Your task to perform on an android device: remove spam from my inbox in the gmail app Image 0: 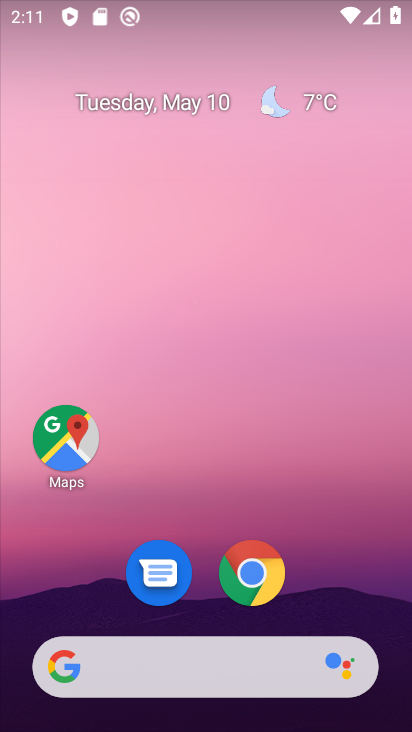
Step 0: drag from (343, 560) to (285, 61)
Your task to perform on an android device: remove spam from my inbox in the gmail app Image 1: 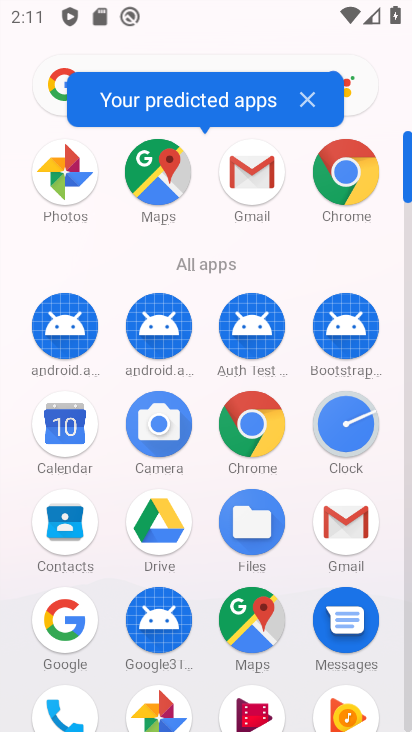
Step 1: click (258, 177)
Your task to perform on an android device: remove spam from my inbox in the gmail app Image 2: 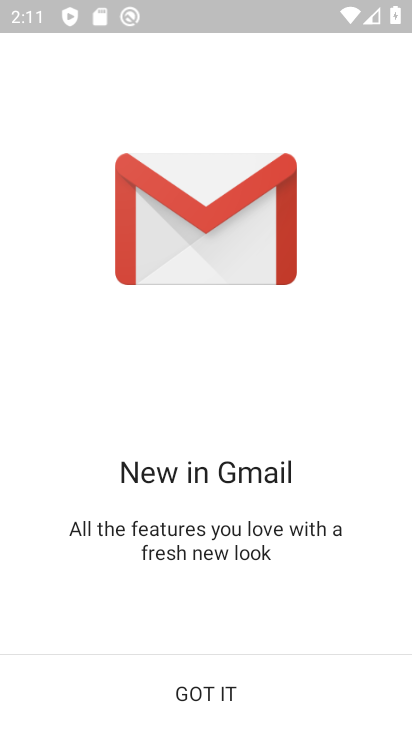
Step 2: click (244, 689)
Your task to perform on an android device: remove spam from my inbox in the gmail app Image 3: 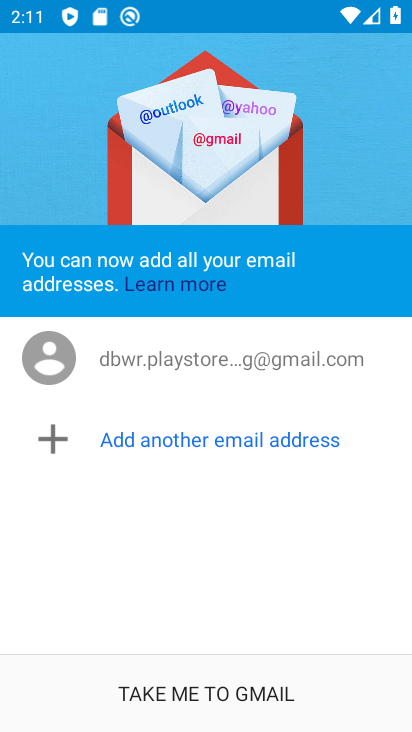
Step 3: click (244, 686)
Your task to perform on an android device: remove spam from my inbox in the gmail app Image 4: 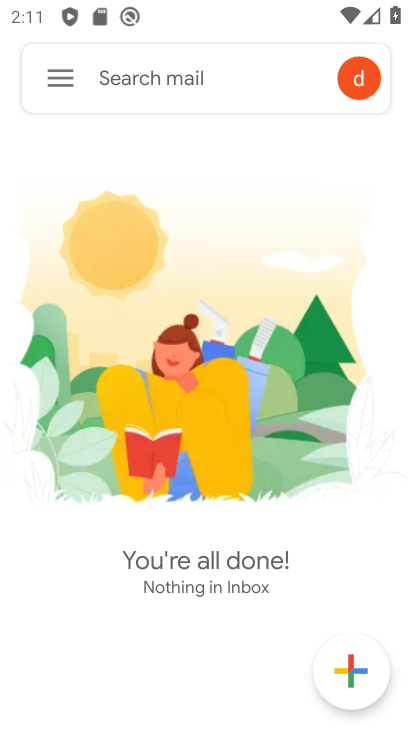
Step 4: click (59, 68)
Your task to perform on an android device: remove spam from my inbox in the gmail app Image 5: 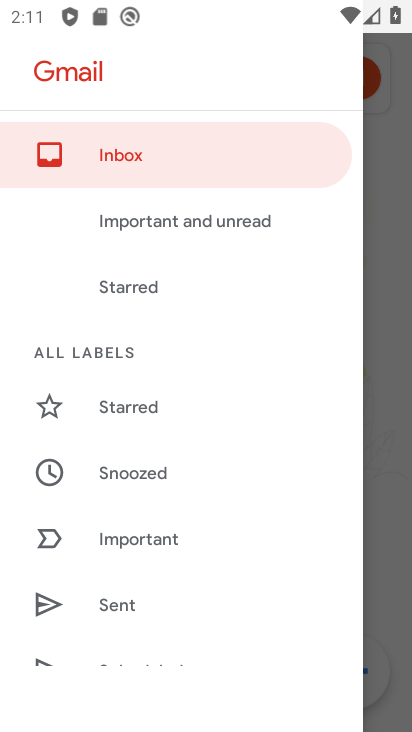
Step 5: drag from (179, 576) to (186, 157)
Your task to perform on an android device: remove spam from my inbox in the gmail app Image 6: 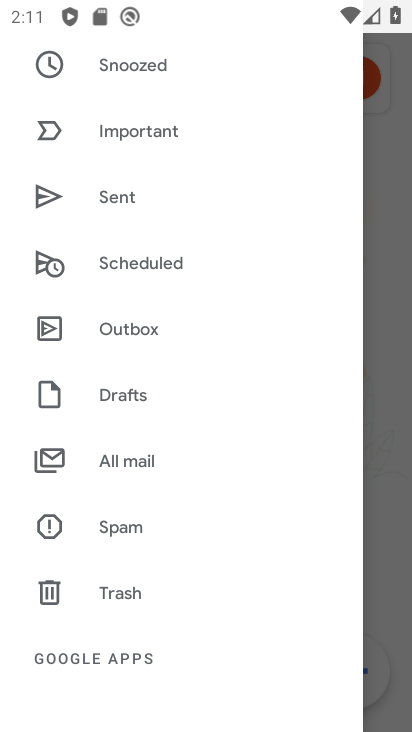
Step 6: click (194, 516)
Your task to perform on an android device: remove spam from my inbox in the gmail app Image 7: 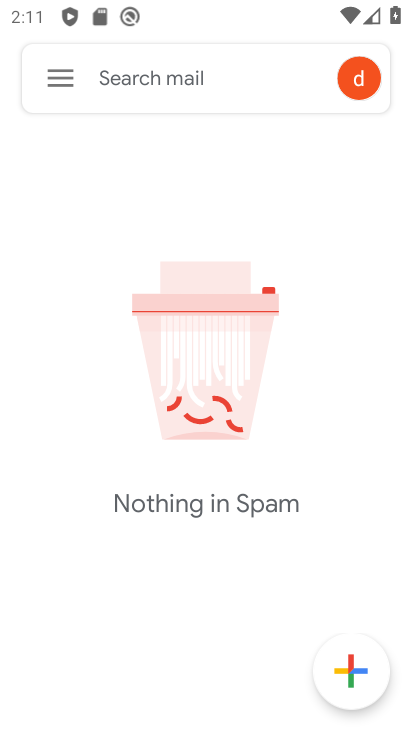
Step 7: task complete